Your task to perform on an android device: stop showing notifications on the lock screen Image 0: 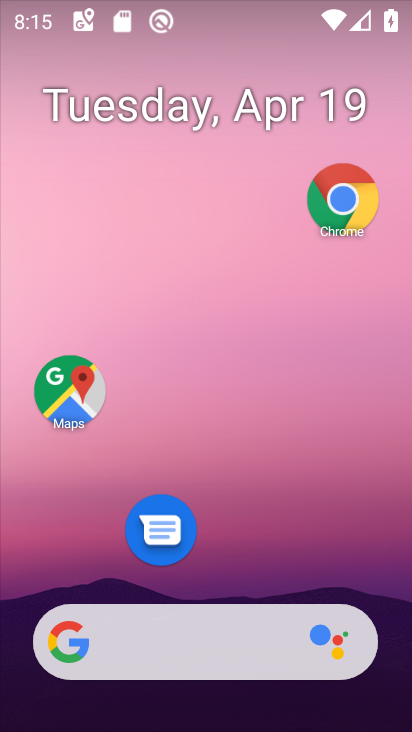
Step 0: drag from (224, 567) to (365, 117)
Your task to perform on an android device: stop showing notifications on the lock screen Image 1: 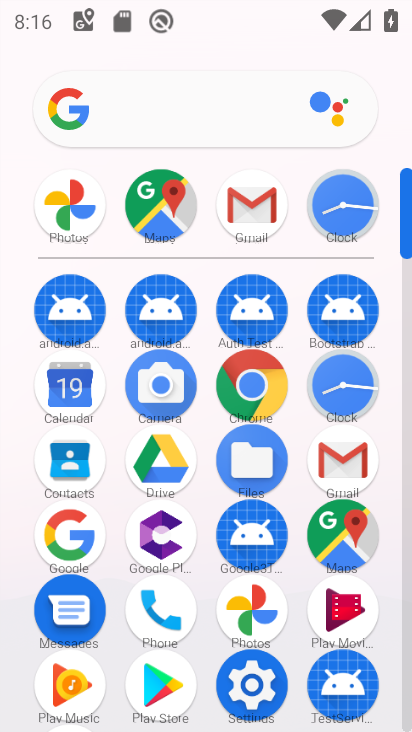
Step 1: click (251, 685)
Your task to perform on an android device: stop showing notifications on the lock screen Image 2: 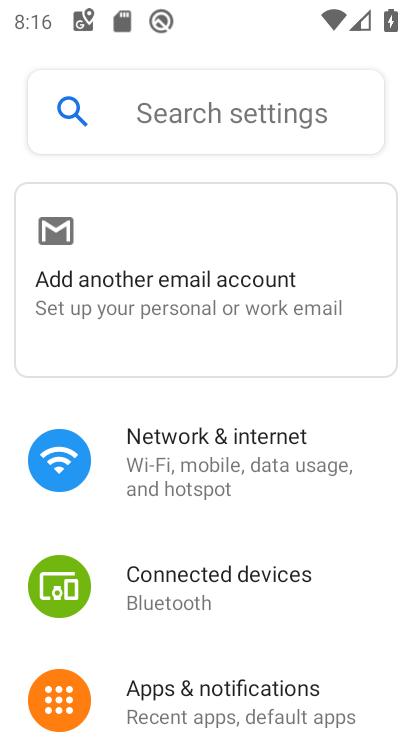
Step 2: drag from (244, 675) to (284, 367)
Your task to perform on an android device: stop showing notifications on the lock screen Image 3: 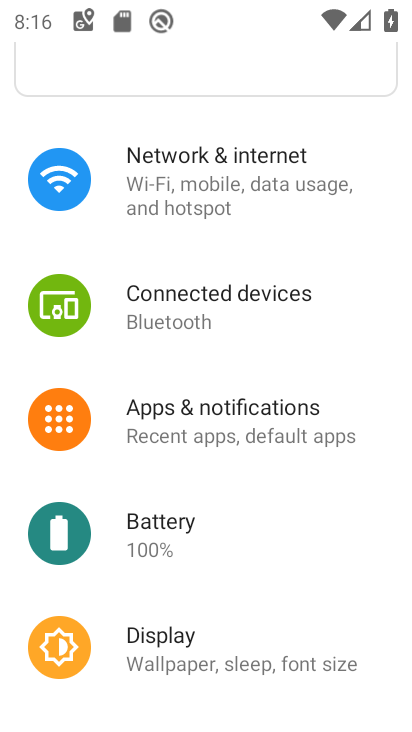
Step 3: click (210, 417)
Your task to perform on an android device: stop showing notifications on the lock screen Image 4: 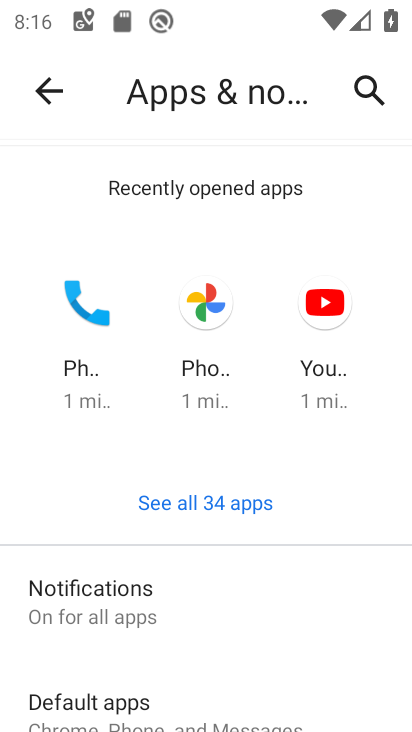
Step 4: drag from (136, 568) to (246, 177)
Your task to perform on an android device: stop showing notifications on the lock screen Image 5: 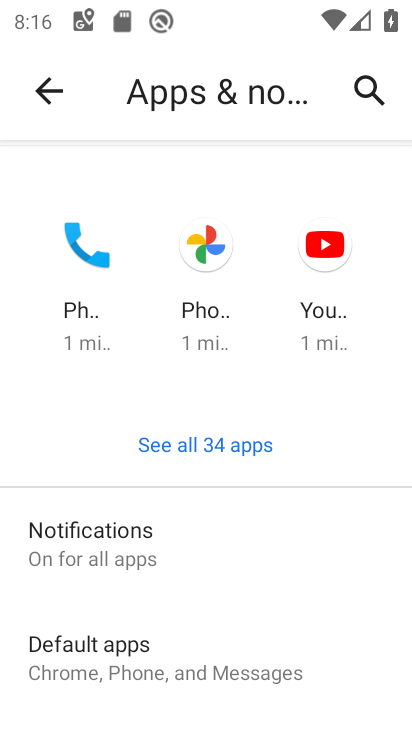
Step 5: drag from (185, 568) to (250, 154)
Your task to perform on an android device: stop showing notifications on the lock screen Image 6: 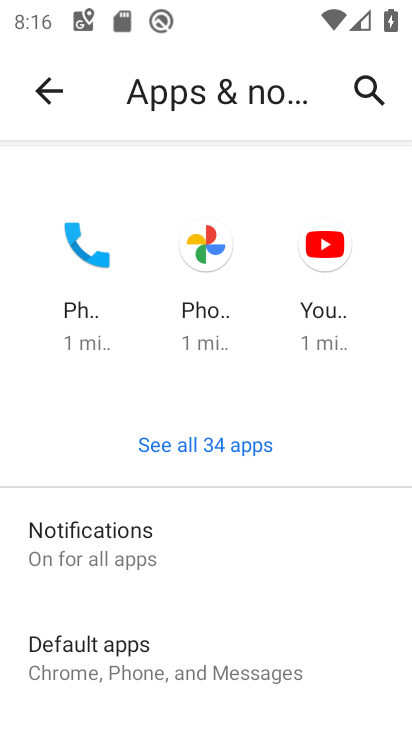
Step 6: click (197, 541)
Your task to perform on an android device: stop showing notifications on the lock screen Image 7: 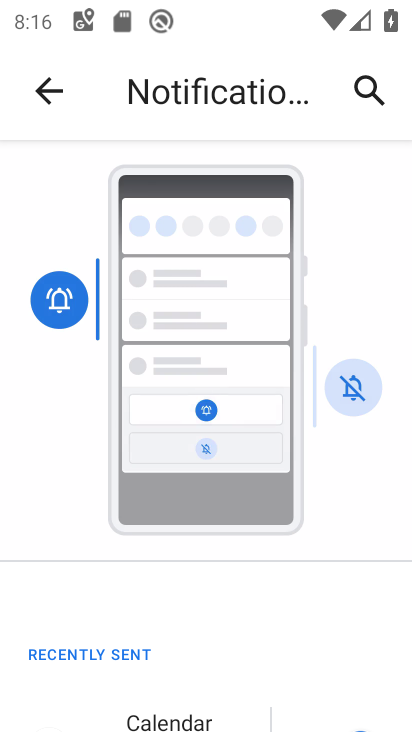
Step 7: drag from (221, 536) to (243, 270)
Your task to perform on an android device: stop showing notifications on the lock screen Image 8: 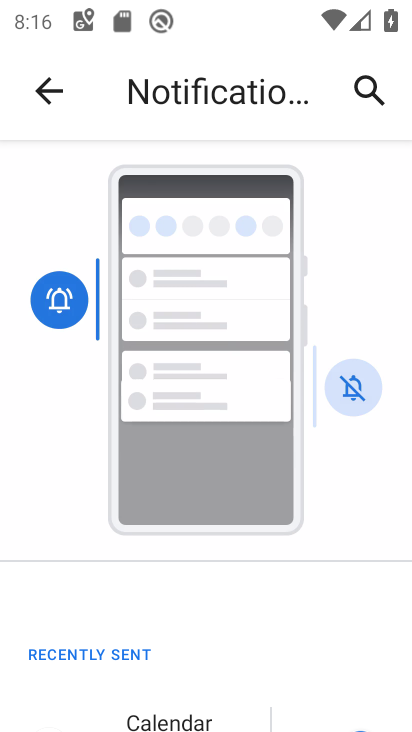
Step 8: drag from (209, 587) to (300, 64)
Your task to perform on an android device: stop showing notifications on the lock screen Image 9: 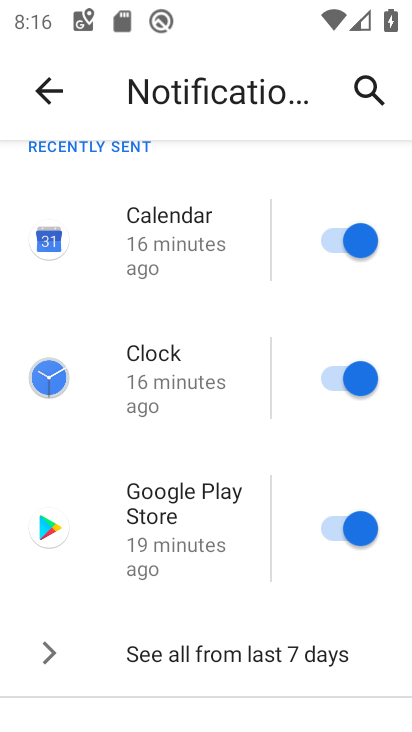
Step 9: drag from (209, 494) to (263, 283)
Your task to perform on an android device: stop showing notifications on the lock screen Image 10: 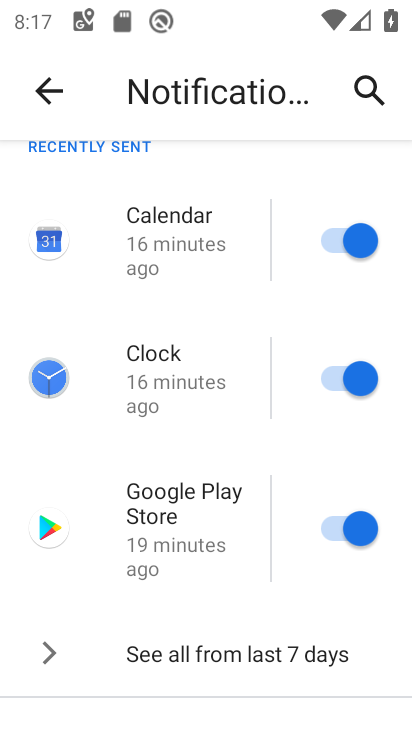
Step 10: drag from (245, 587) to (251, 258)
Your task to perform on an android device: stop showing notifications on the lock screen Image 11: 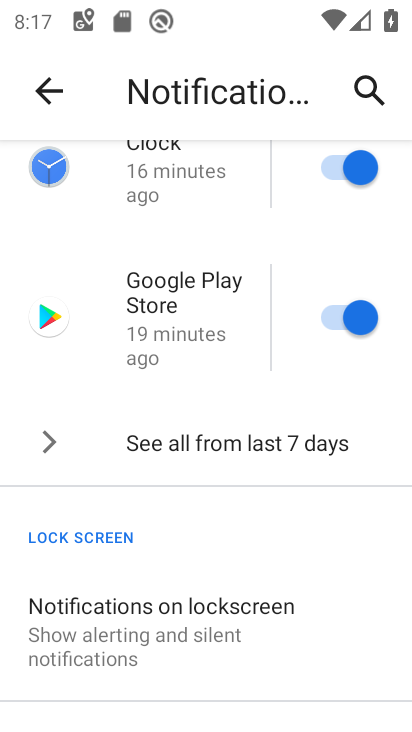
Step 11: click (189, 633)
Your task to perform on an android device: stop showing notifications on the lock screen Image 12: 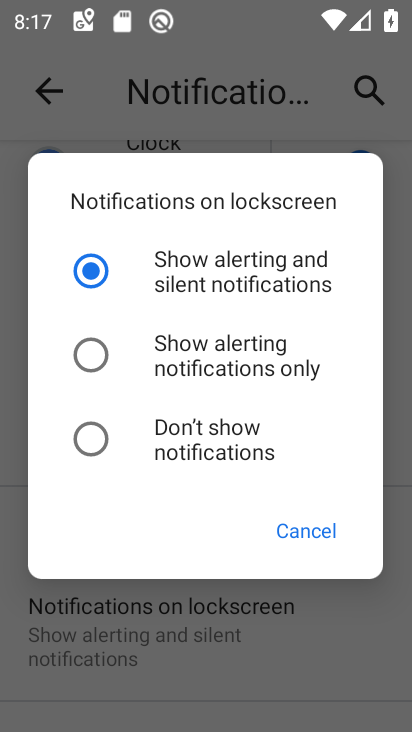
Step 12: click (190, 342)
Your task to perform on an android device: stop showing notifications on the lock screen Image 13: 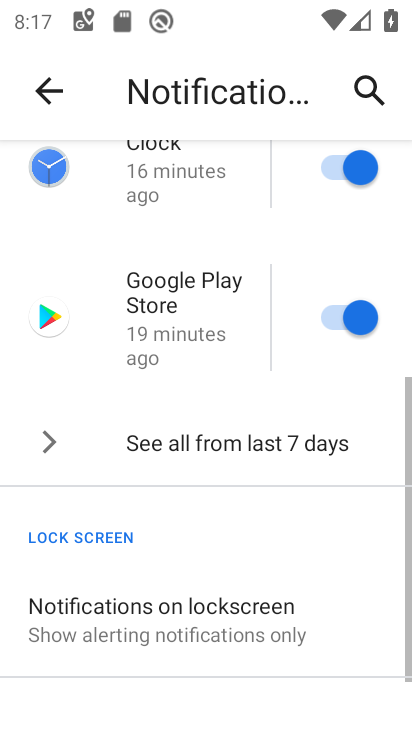
Step 13: task complete